Your task to perform on an android device: move an email to a new category in the gmail app Image 0: 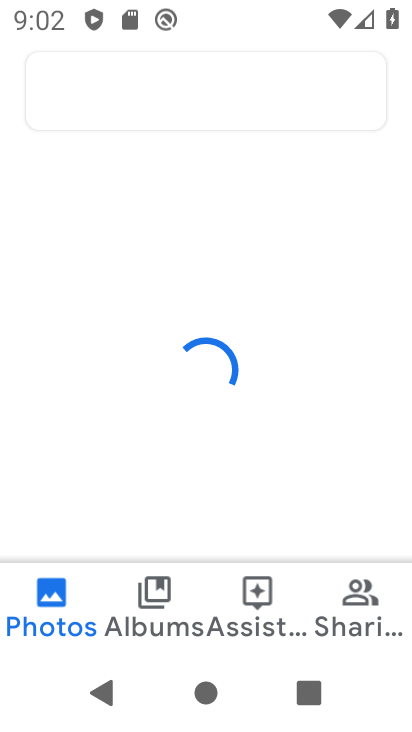
Step 0: press home button
Your task to perform on an android device: move an email to a new category in the gmail app Image 1: 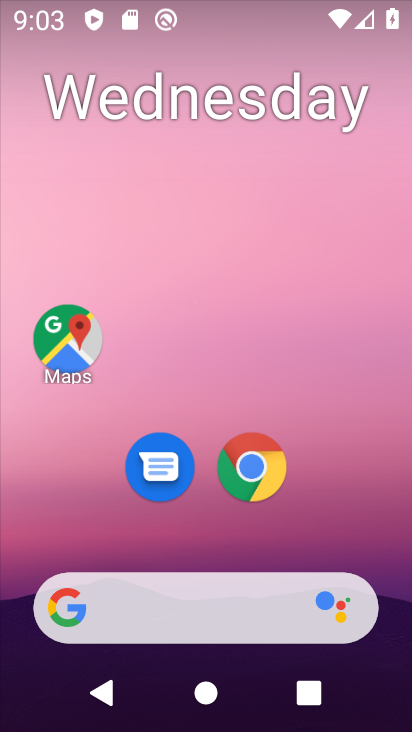
Step 1: drag from (337, 520) to (258, 57)
Your task to perform on an android device: move an email to a new category in the gmail app Image 2: 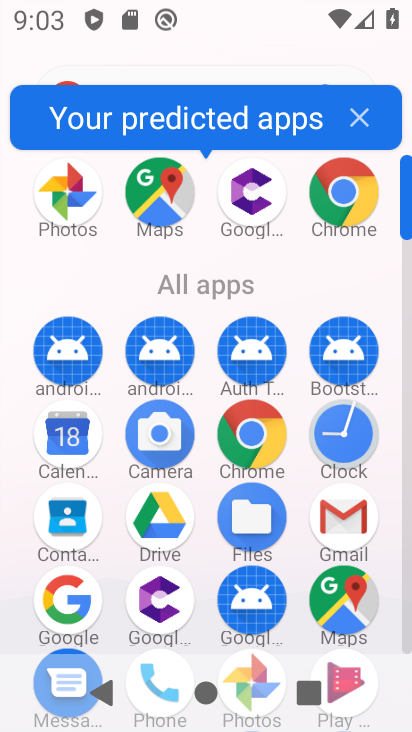
Step 2: click (339, 521)
Your task to perform on an android device: move an email to a new category in the gmail app Image 3: 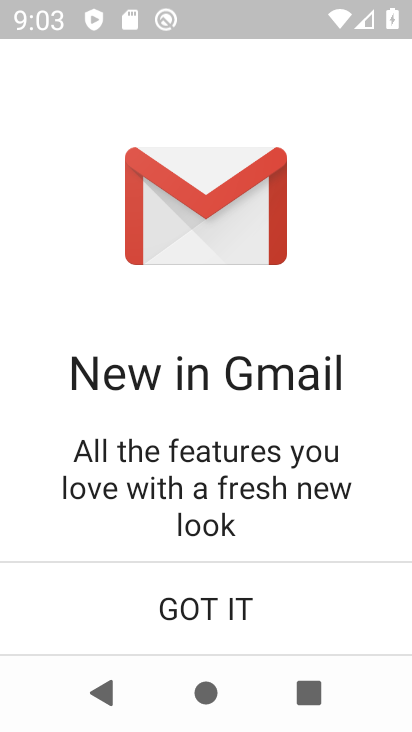
Step 3: click (201, 621)
Your task to perform on an android device: move an email to a new category in the gmail app Image 4: 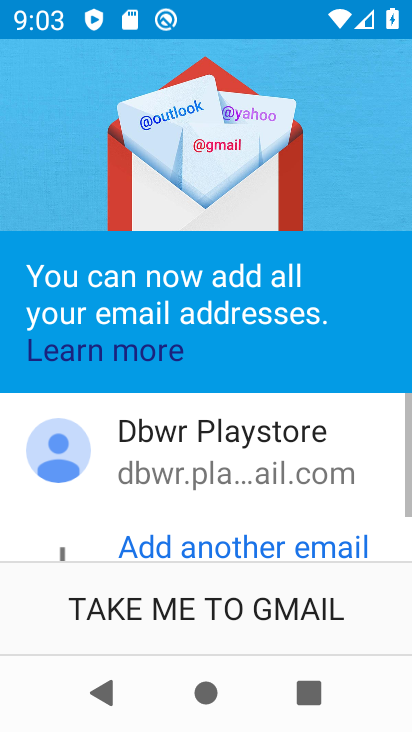
Step 4: click (201, 621)
Your task to perform on an android device: move an email to a new category in the gmail app Image 5: 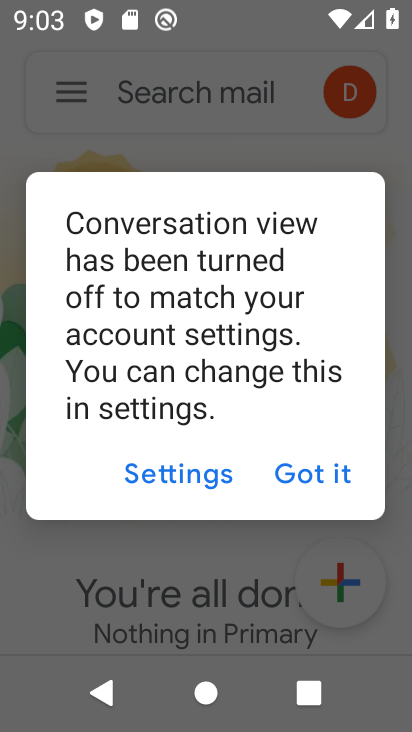
Step 5: click (305, 469)
Your task to perform on an android device: move an email to a new category in the gmail app Image 6: 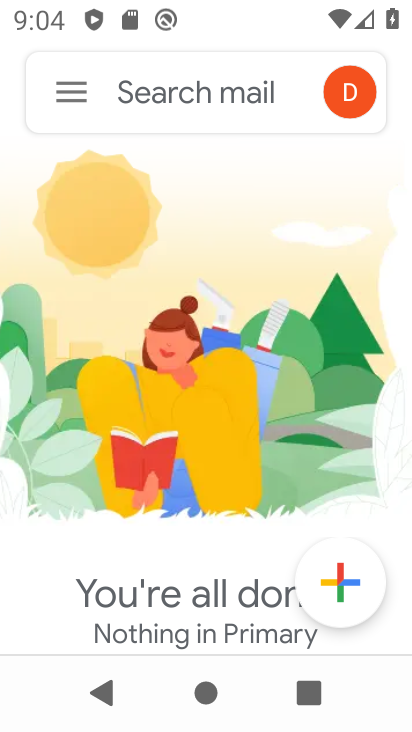
Step 6: click (69, 84)
Your task to perform on an android device: move an email to a new category in the gmail app Image 7: 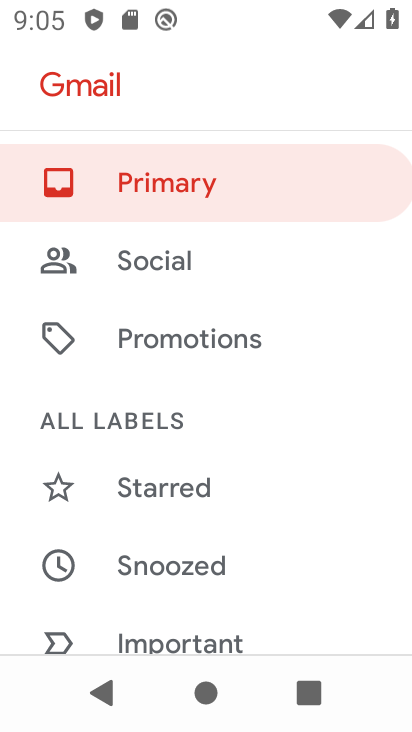
Step 7: task complete